Your task to perform on an android device: Open notification settings Image 0: 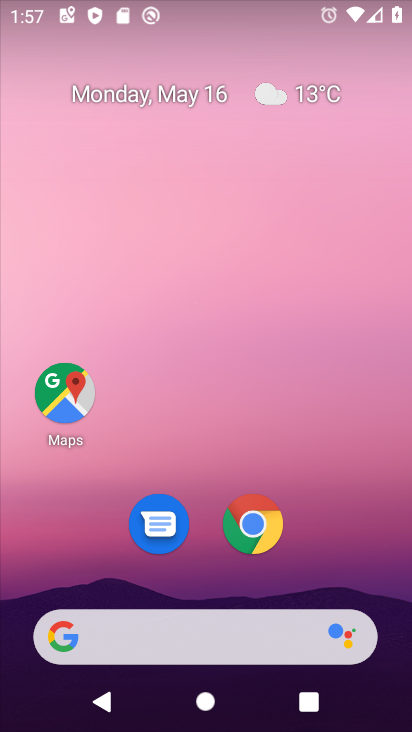
Step 0: drag from (347, 534) to (379, 23)
Your task to perform on an android device: Open notification settings Image 1: 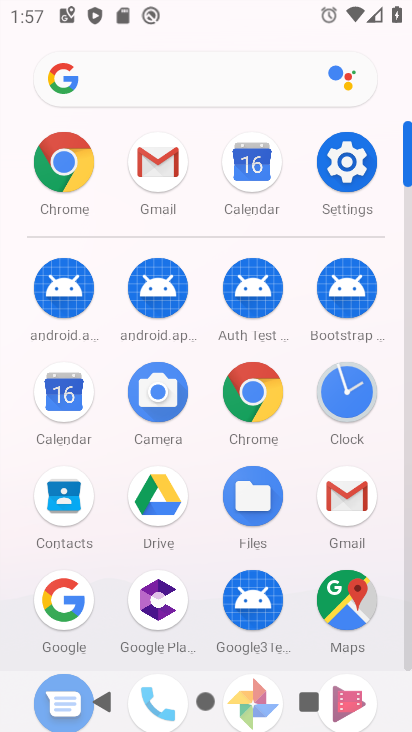
Step 1: click (352, 160)
Your task to perform on an android device: Open notification settings Image 2: 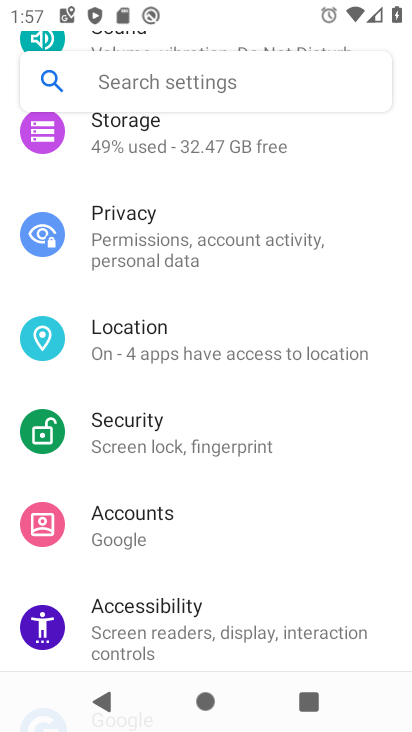
Step 2: drag from (278, 255) to (292, 623)
Your task to perform on an android device: Open notification settings Image 3: 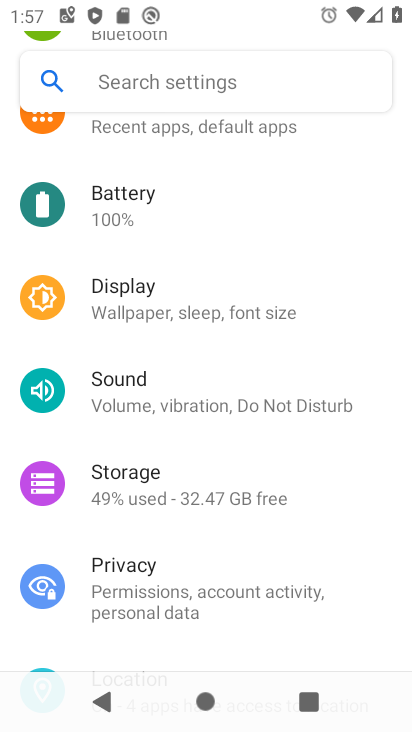
Step 3: drag from (266, 215) to (263, 630)
Your task to perform on an android device: Open notification settings Image 4: 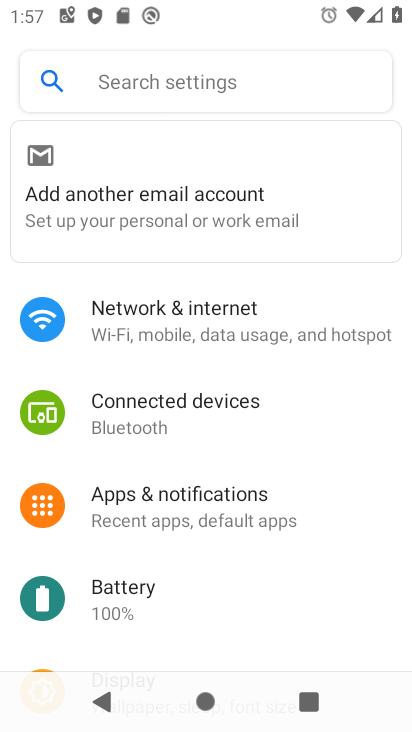
Step 4: click (224, 497)
Your task to perform on an android device: Open notification settings Image 5: 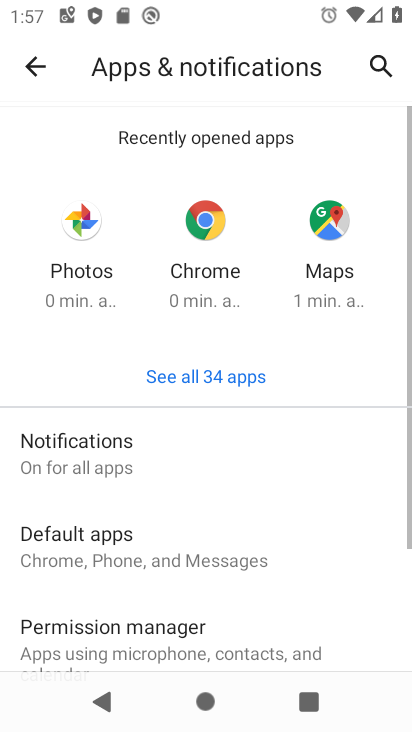
Step 5: click (160, 447)
Your task to perform on an android device: Open notification settings Image 6: 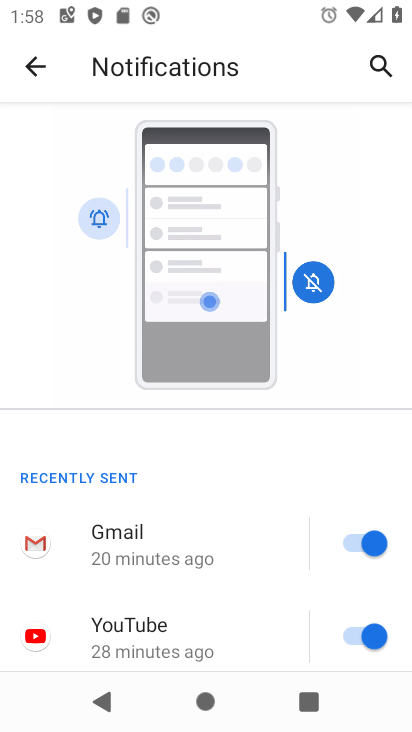
Step 6: task complete